Your task to perform on an android device: toggle data saver in the chrome app Image 0: 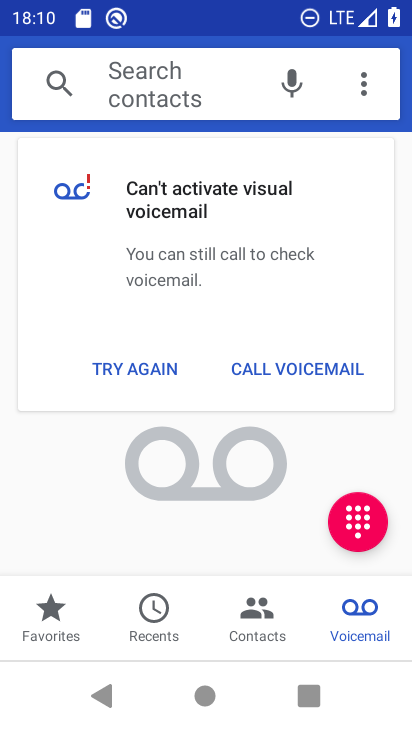
Step 0: press home button
Your task to perform on an android device: toggle data saver in the chrome app Image 1: 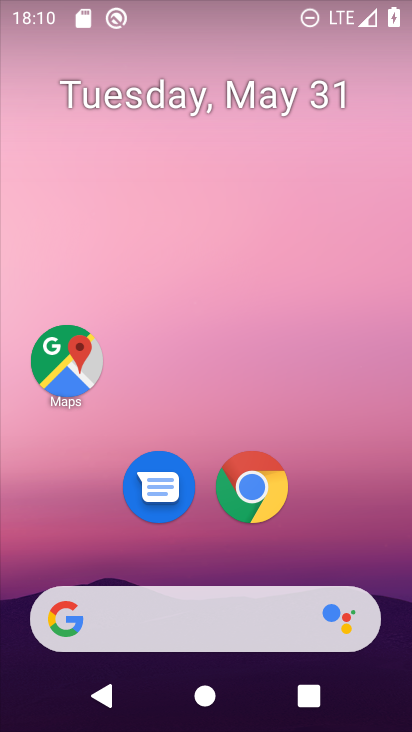
Step 1: click (242, 477)
Your task to perform on an android device: toggle data saver in the chrome app Image 2: 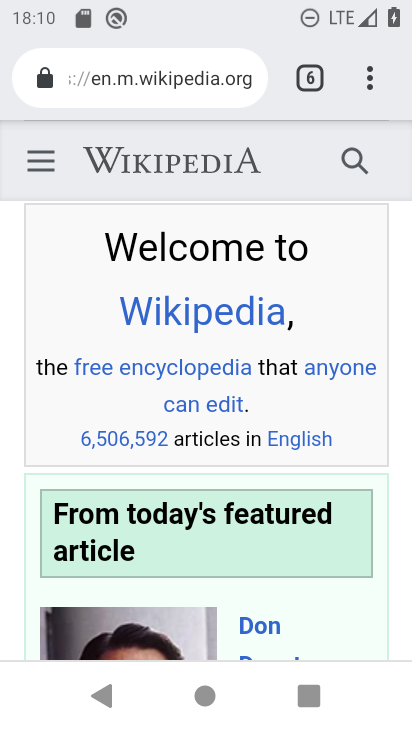
Step 2: click (371, 72)
Your task to perform on an android device: toggle data saver in the chrome app Image 3: 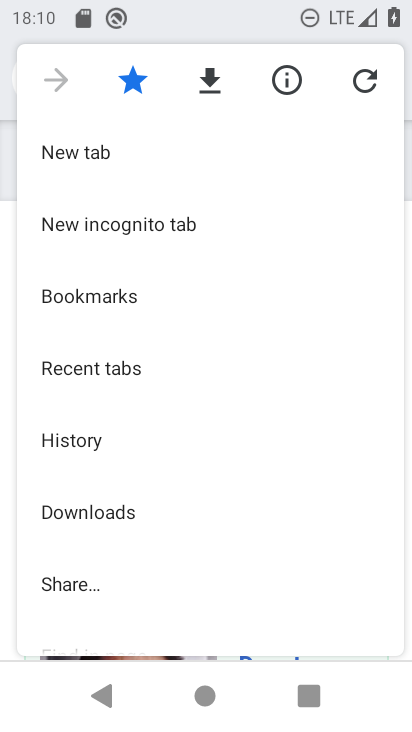
Step 3: drag from (215, 506) to (211, 197)
Your task to perform on an android device: toggle data saver in the chrome app Image 4: 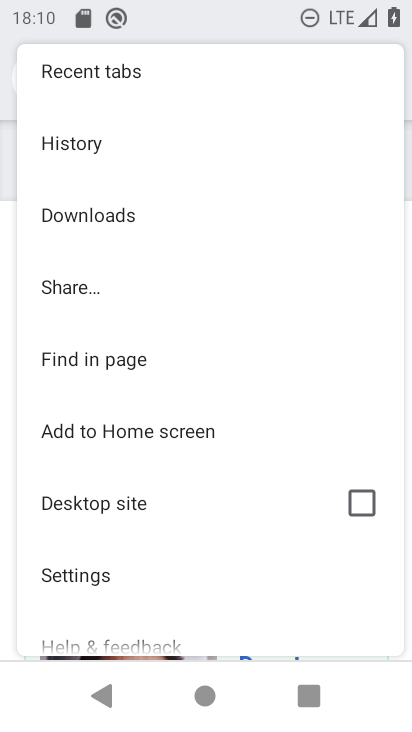
Step 4: click (88, 574)
Your task to perform on an android device: toggle data saver in the chrome app Image 5: 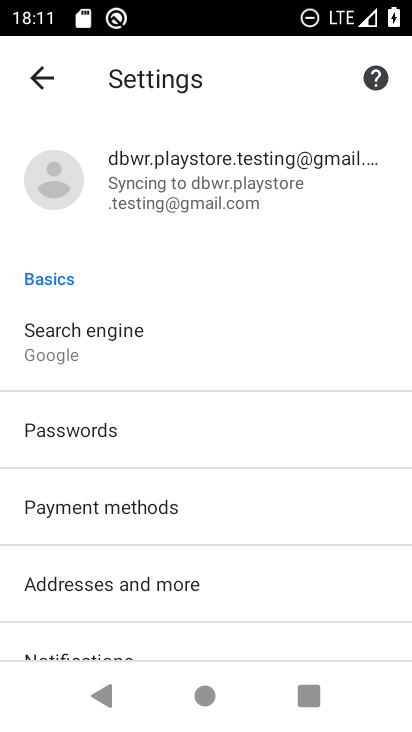
Step 5: drag from (247, 520) to (206, 253)
Your task to perform on an android device: toggle data saver in the chrome app Image 6: 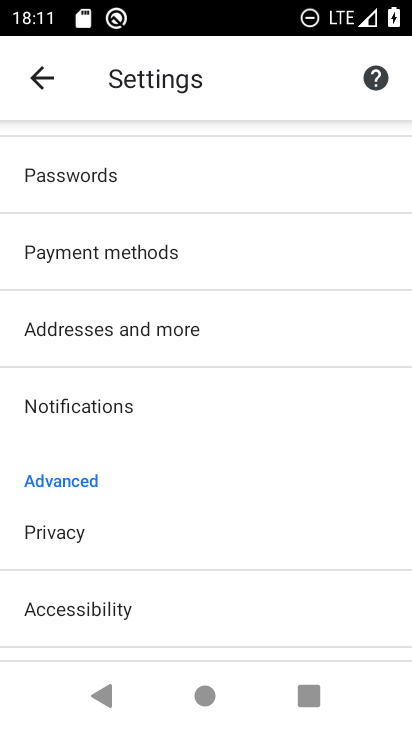
Step 6: drag from (228, 466) to (216, 134)
Your task to perform on an android device: toggle data saver in the chrome app Image 7: 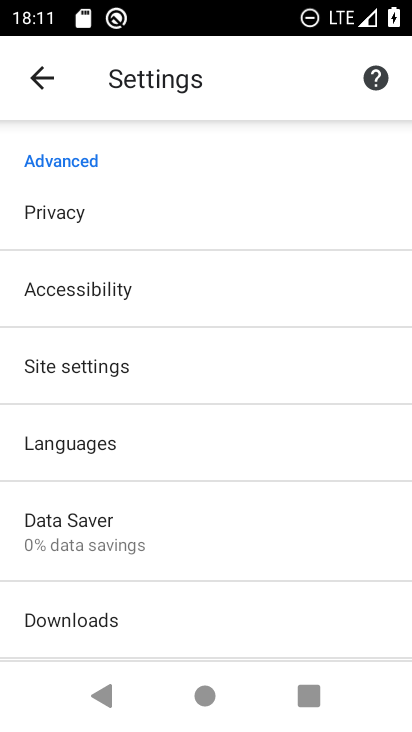
Step 7: click (76, 520)
Your task to perform on an android device: toggle data saver in the chrome app Image 8: 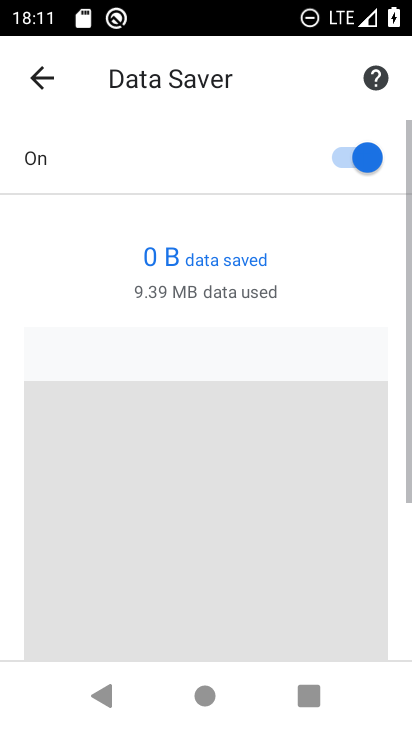
Step 8: click (355, 136)
Your task to perform on an android device: toggle data saver in the chrome app Image 9: 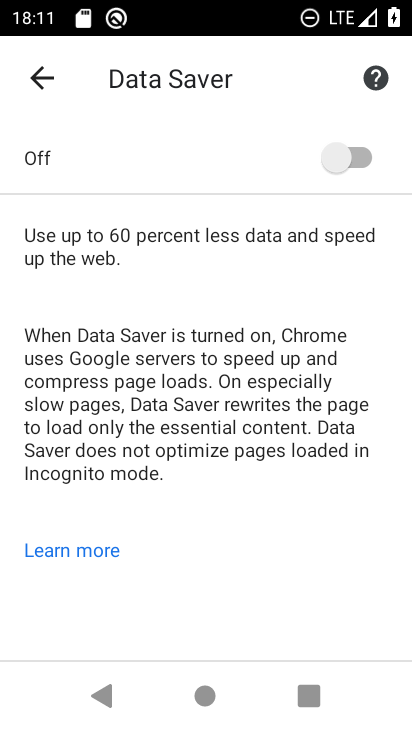
Step 9: task complete